Your task to perform on an android device: Open privacy settings Image 0: 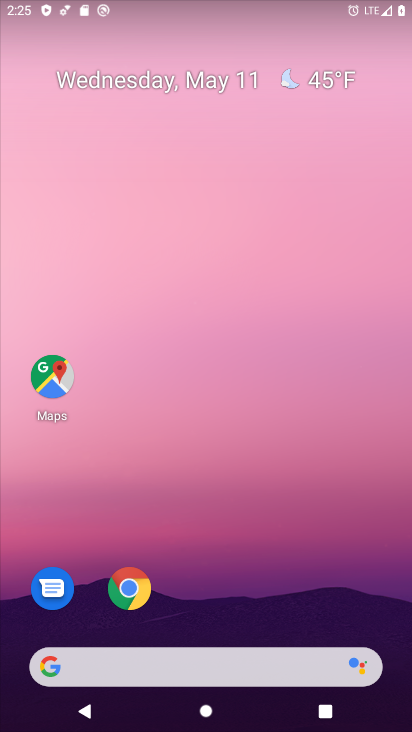
Step 0: drag from (191, 618) to (279, 194)
Your task to perform on an android device: Open privacy settings Image 1: 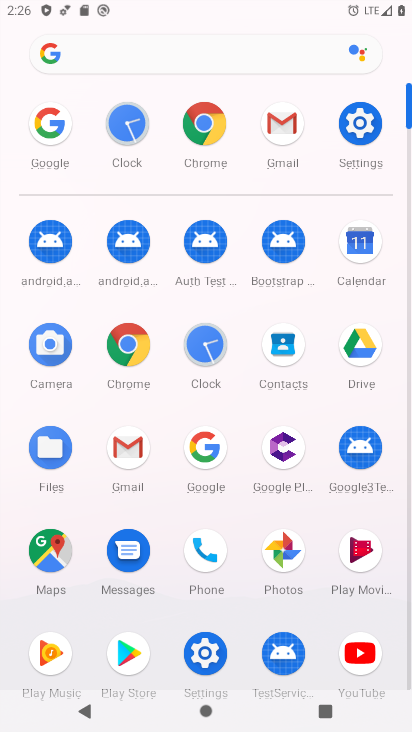
Step 1: click (357, 141)
Your task to perform on an android device: Open privacy settings Image 2: 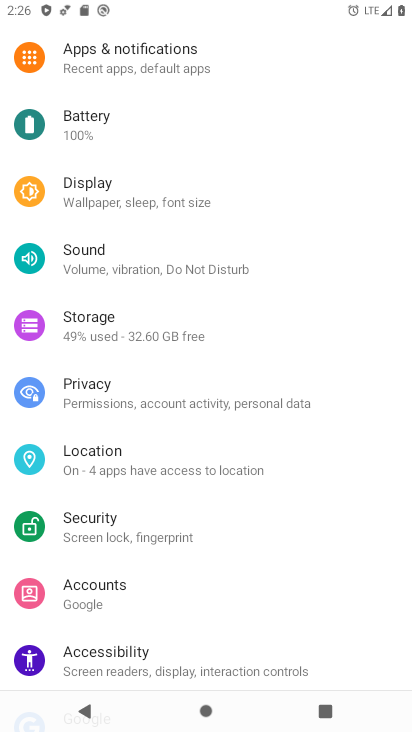
Step 2: click (124, 380)
Your task to perform on an android device: Open privacy settings Image 3: 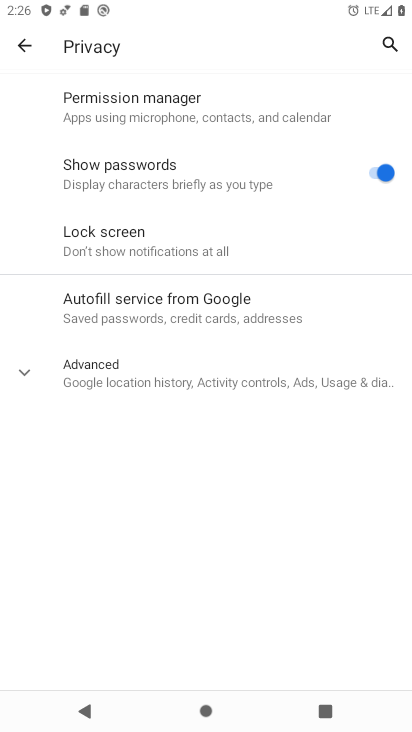
Step 3: task complete